Your task to perform on an android device: turn off location Image 0: 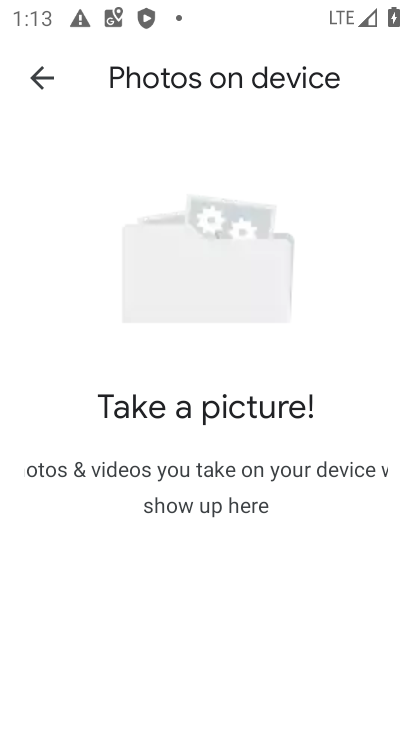
Step 0: press home button
Your task to perform on an android device: turn off location Image 1: 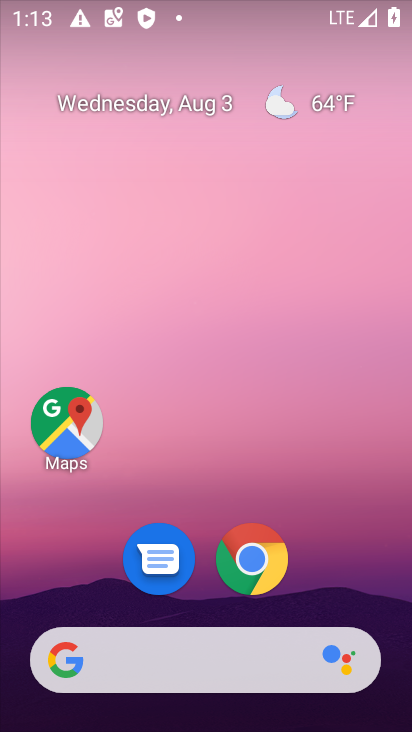
Step 1: drag from (200, 600) to (180, 88)
Your task to perform on an android device: turn off location Image 2: 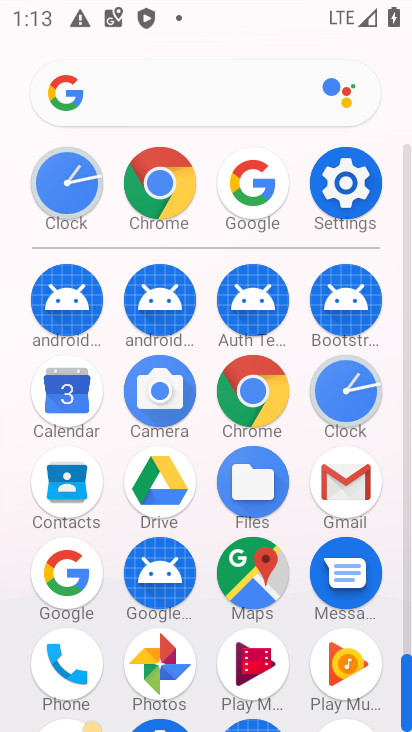
Step 2: click (348, 196)
Your task to perform on an android device: turn off location Image 3: 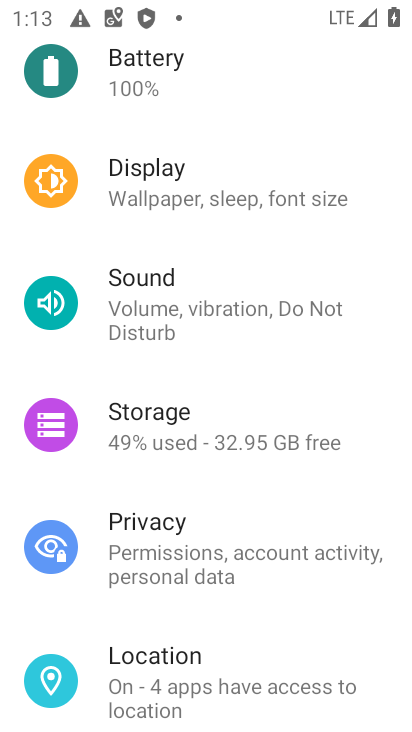
Step 3: click (150, 670)
Your task to perform on an android device: turn off location Image 4: 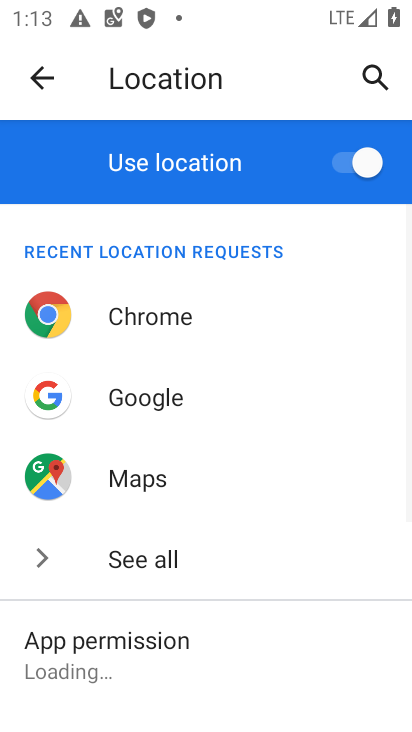
Step 4: click (350, 171)
Your task to perform on an android device: turn off location Image 5: 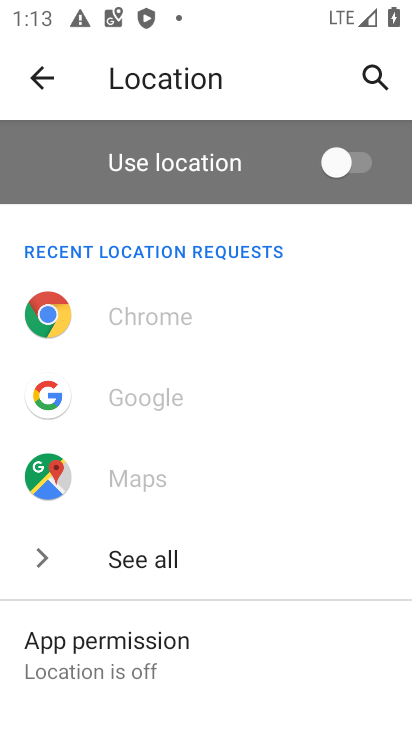
Step 5: task complete